Your task to perform on an android device: find photos in the google photos app Image 0: 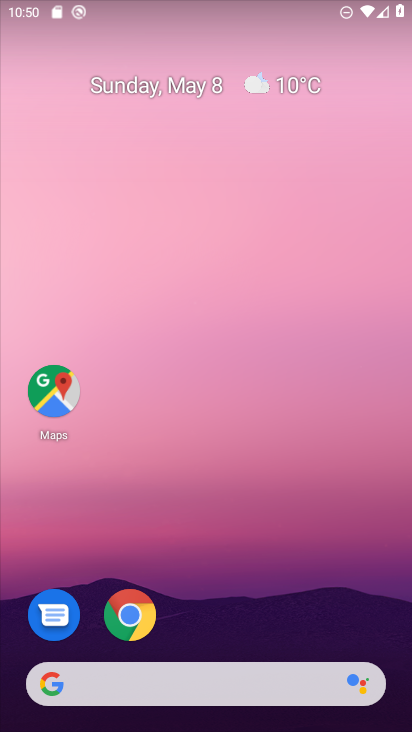
Step 0: drag from (286, 630) to (319, 73)
Your task to perform on an android device: find photos in the google photos app Image 1: 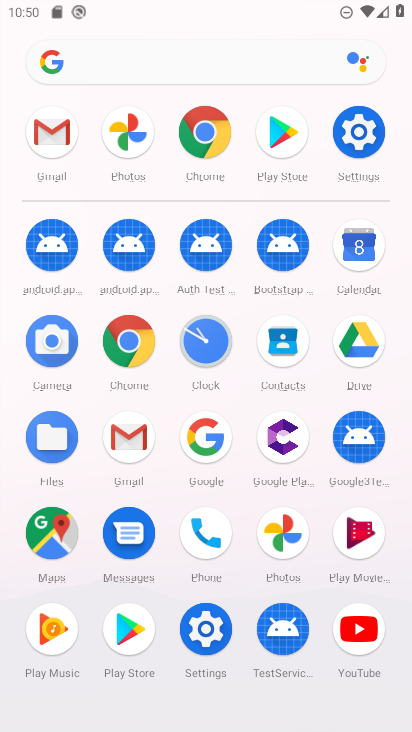
Step 1: click (300, 532)
Your task to perform on an android device: find photos in the google photos app Image 2: 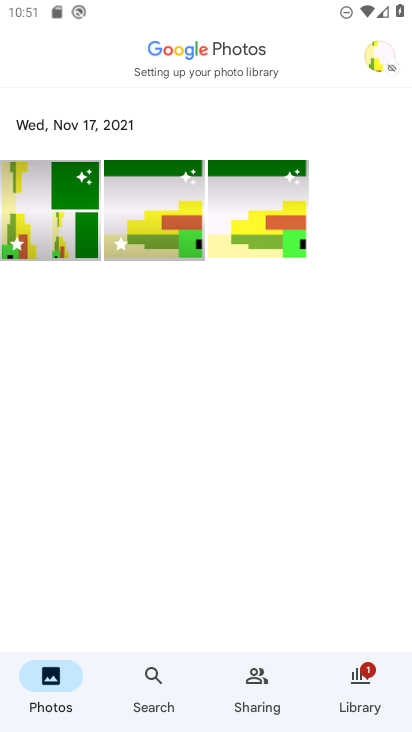
Step 2: click (31, 200)
Your task to perform on an android device: find photos in the google photos app Image 3: 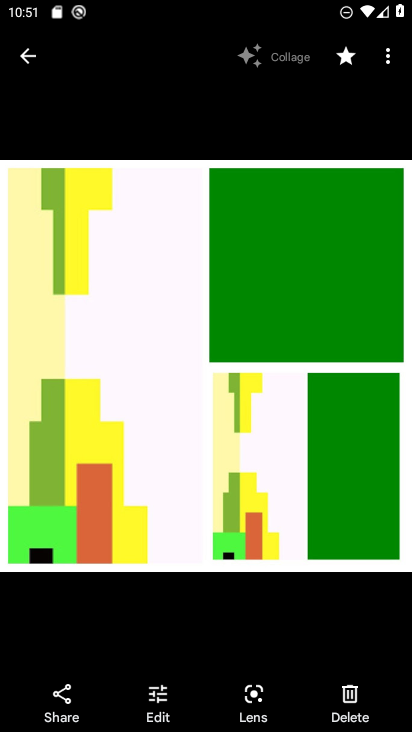
Step 3: task complete